Your task to perform on an android device: Go to calendar. Show me events next week Image 0: 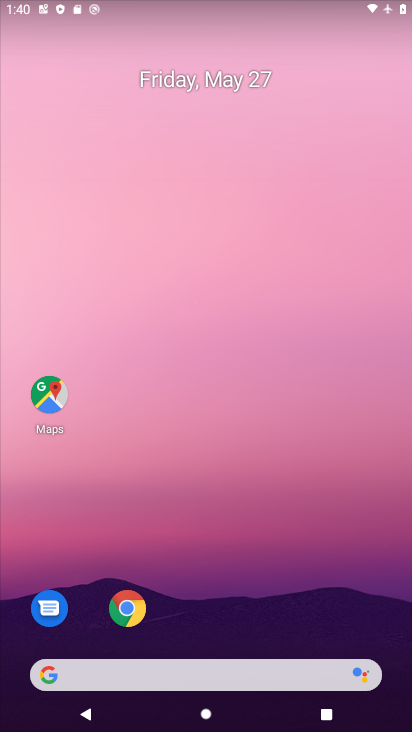
Step 0: press home button
Your task to perform on an android device: Go to calendar. Show me events next week Image 1: 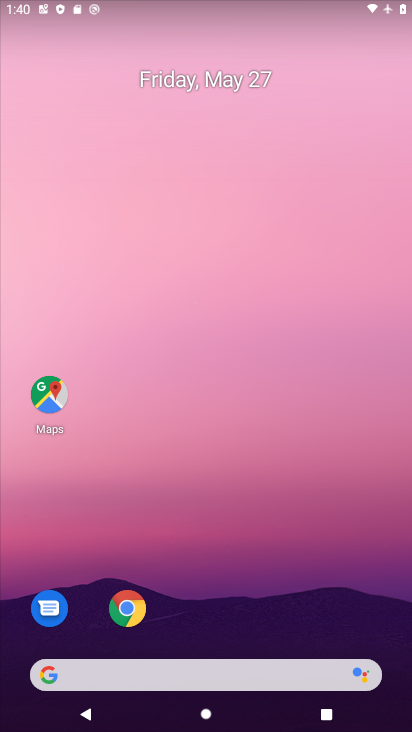
Step 1: drag from (201, 673) to (345, 0)
Your task to perform on an android device: Go to calendar. Show me events next week Image 2: 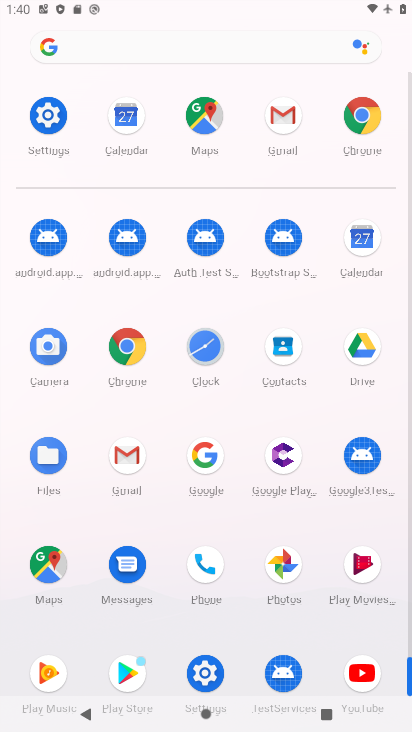
Step 2: click (354, 241)
Your task to perform on an android device: Go to calendar. Show me events next week Image 3: 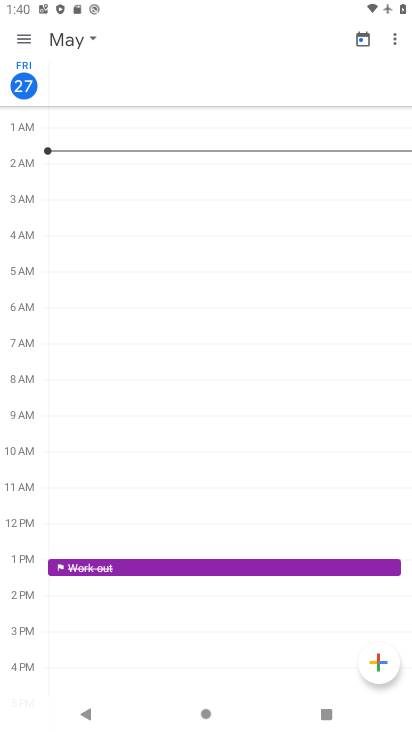
Step 3: click (70, 39)
Your task to perform on an android device: Go to calendar. Show me events next week Image 4: 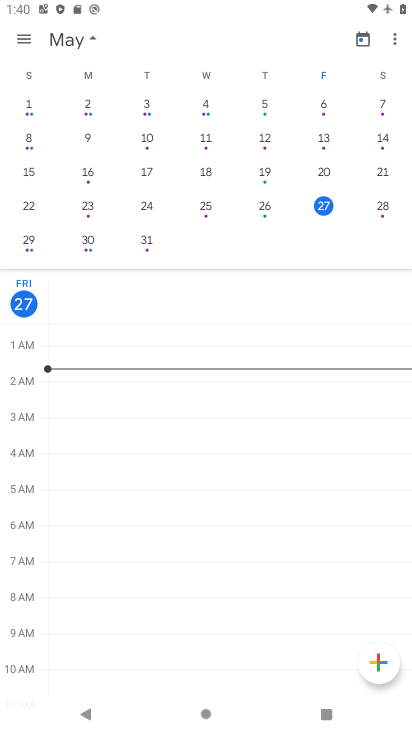
Step 4: click (28, 242)
Your task to perform on an android device: Go to calendar. Show me events next week Image 5: 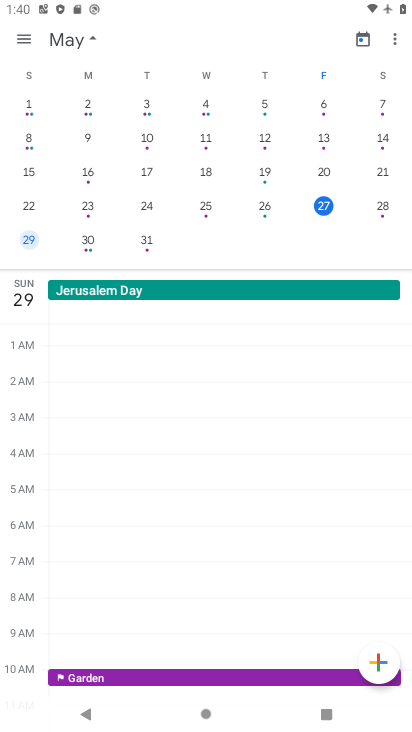
Step 5: click (21, 36)
Your task to perform on an android device: Go to calendar. Show me events next week Image 6: 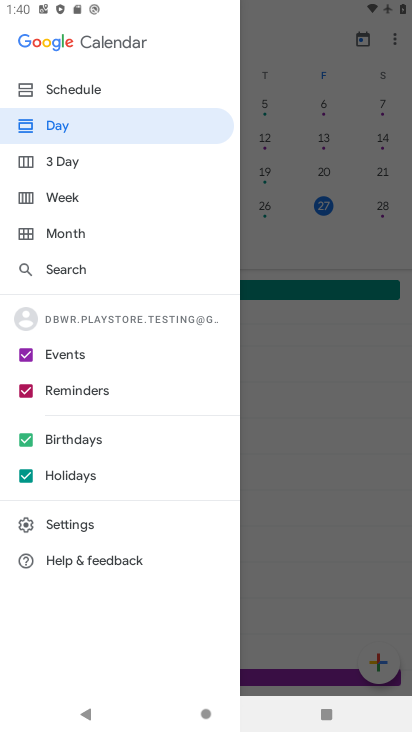
Step 6: click (69, 204)
Your task to perform on an android device: Go to calendar. Show me events next week Image 7: 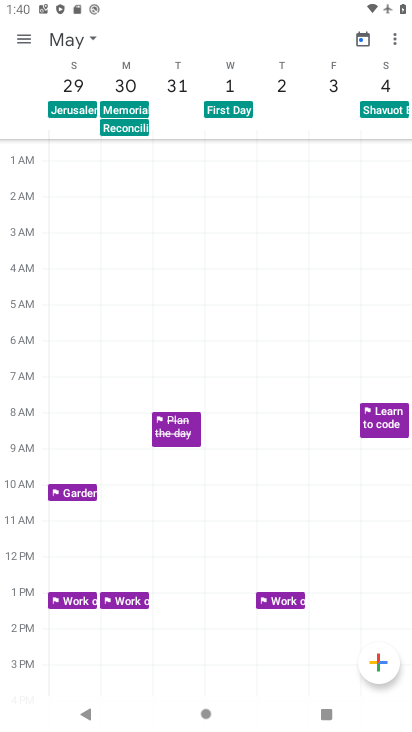
Step 7: click (23, 47)
Your task to perform on an android device: Go to calendar. Show me events next week Image 8: 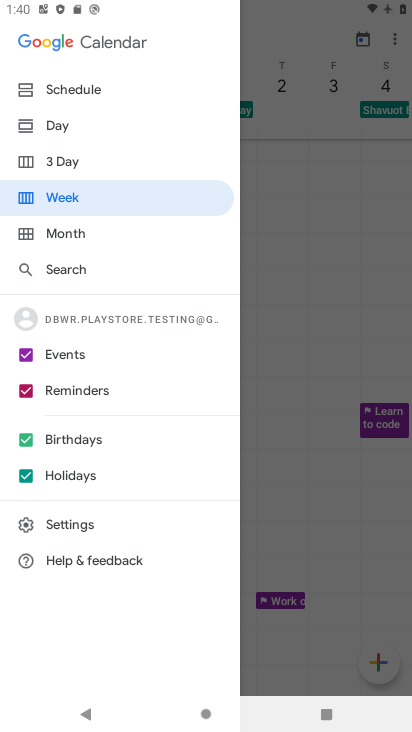
Step 8: click (92, 96)
Your task to perform on an android device: Go to calendar. Show me events next week Image 9: 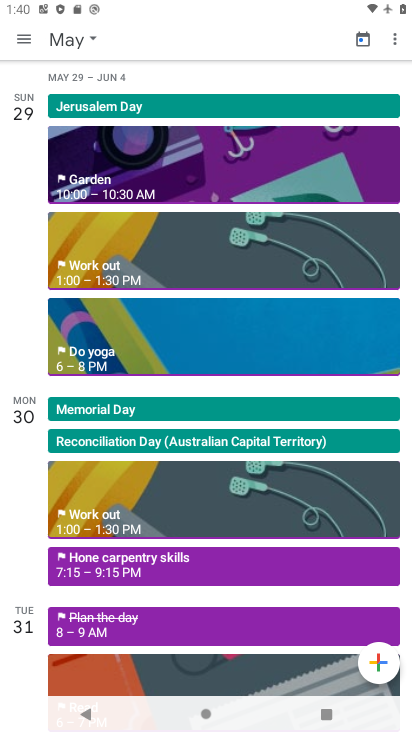
Step 9: click (168, 153)
Your task to perform on an android device: Go to calendar. Show me events next week Image 10: 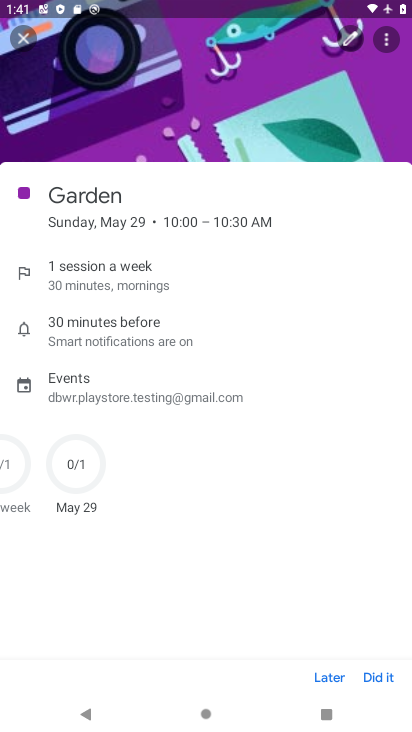
Step 10: task complete